Your task to perform on an android device: add a label to a message in the gmail app Image 0: 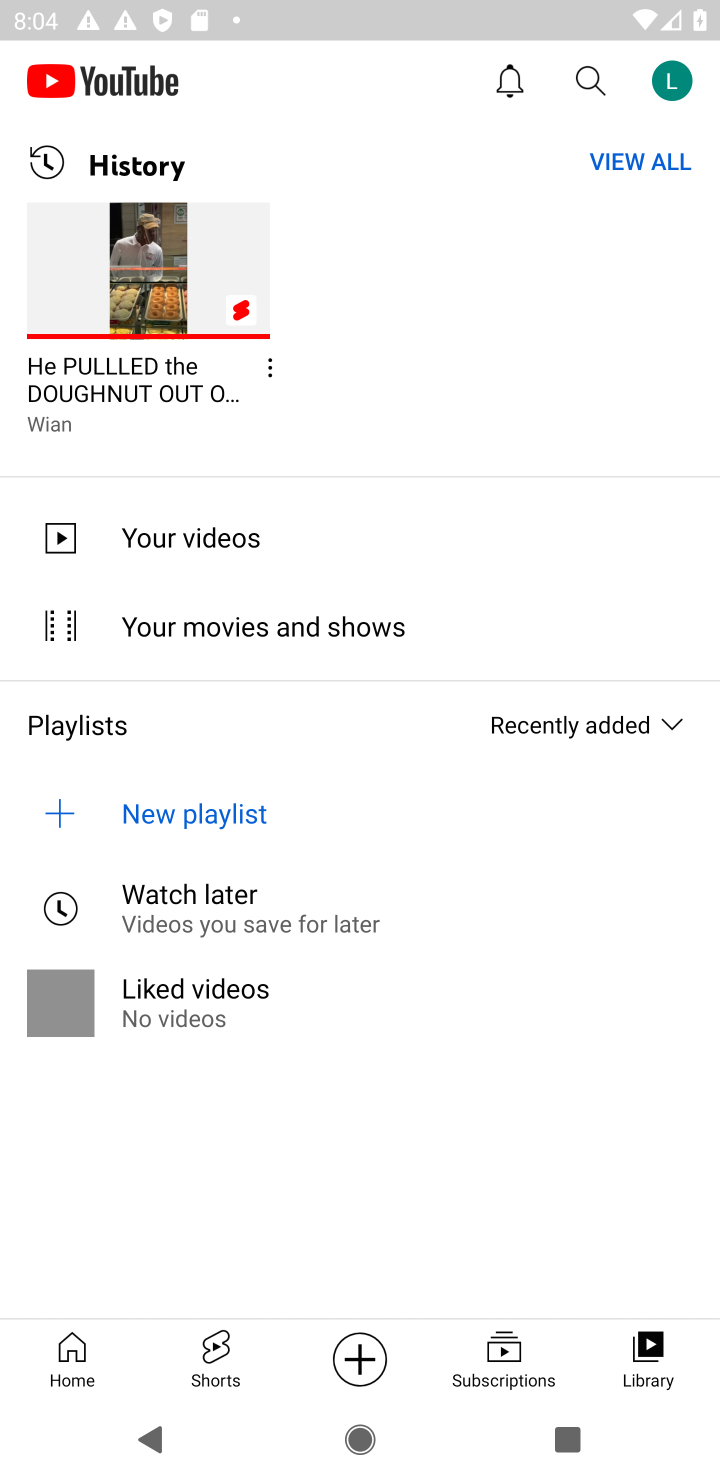
Step 0: press home button
Your task to perform on an android device: add a label to a message in the gmail app Image 1: 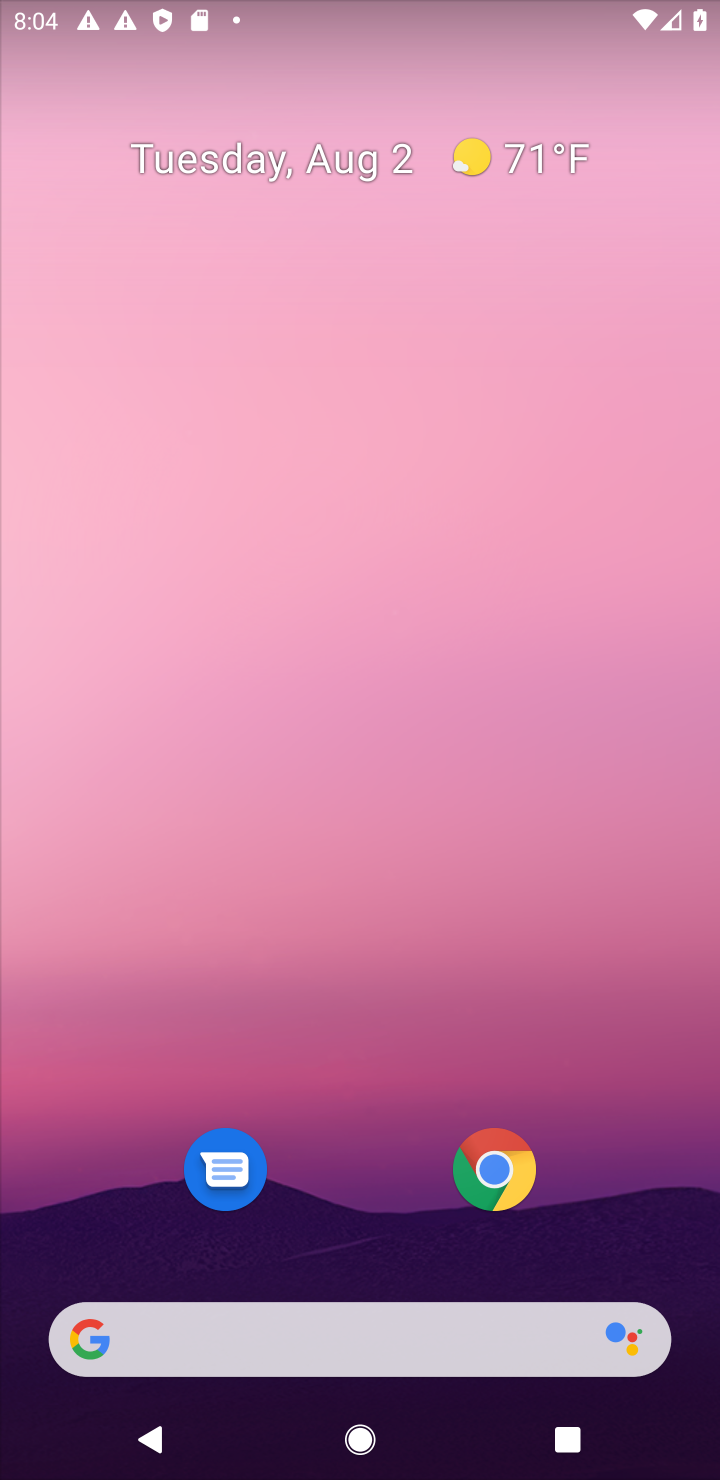
Step 1: drag from (309, 1095) to (366, 19)
Your task to perform on an android device: add a label to a message in the gmail app Image 2: 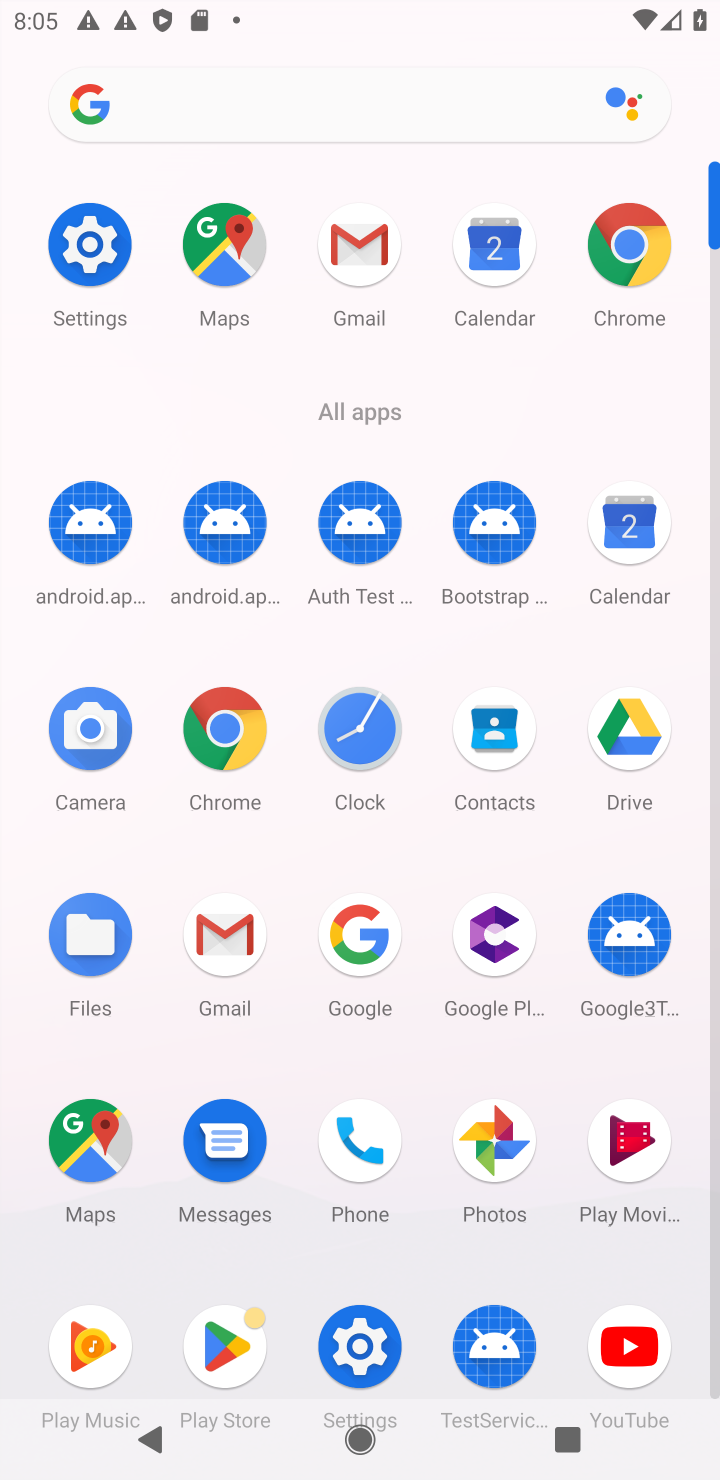
Step 2: click (365, 226)
Your task to perform on an android device: add a label to a message in the gmail app Image 3: 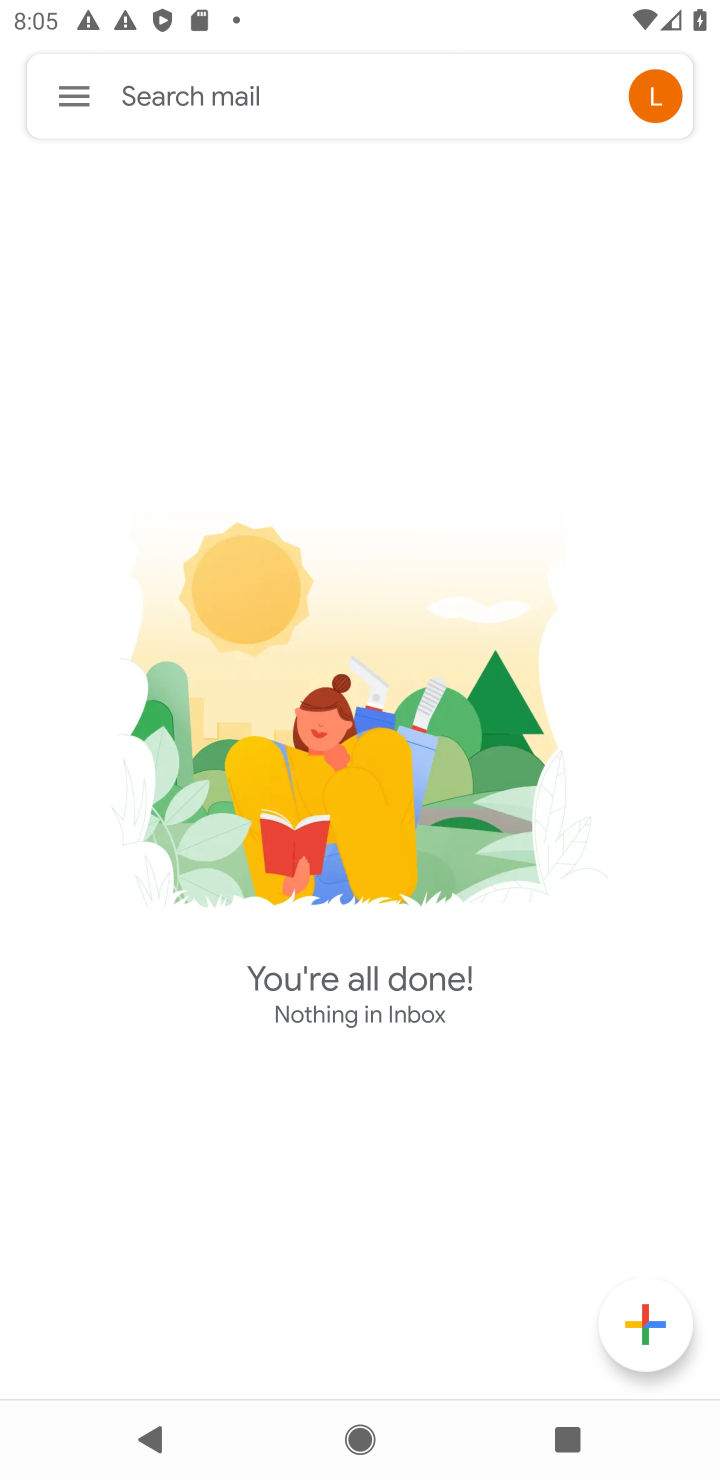
Step 3: task complete